Your task to perform on an android device: Show me popular games on the Play Store Image 0: 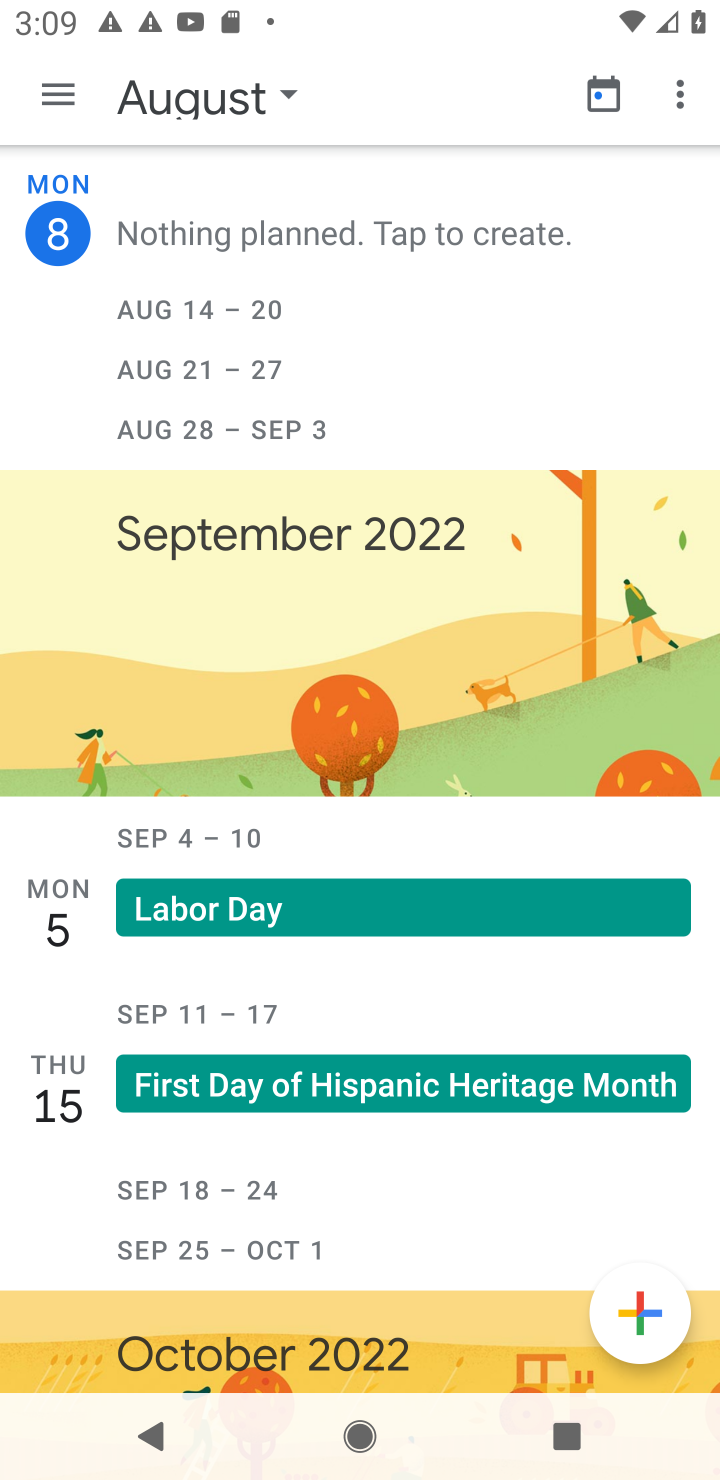
Step 0: press home button
Your task to perform on an android device: Show me popular games on the Play Store Image 1: 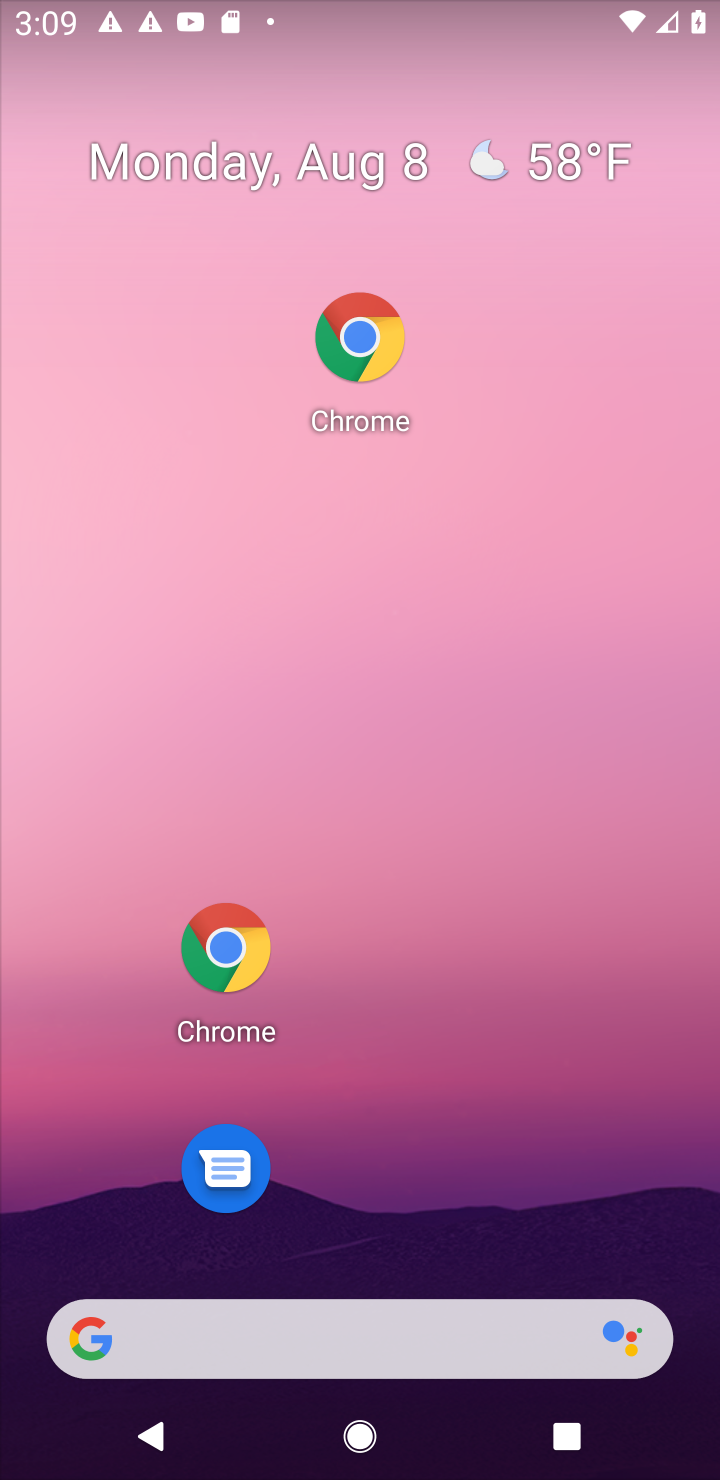
Step 1: drag from (534, 1235) to (429, 210)
Your task to perform on an android device: Show me popular games on the Play Store Image 2: 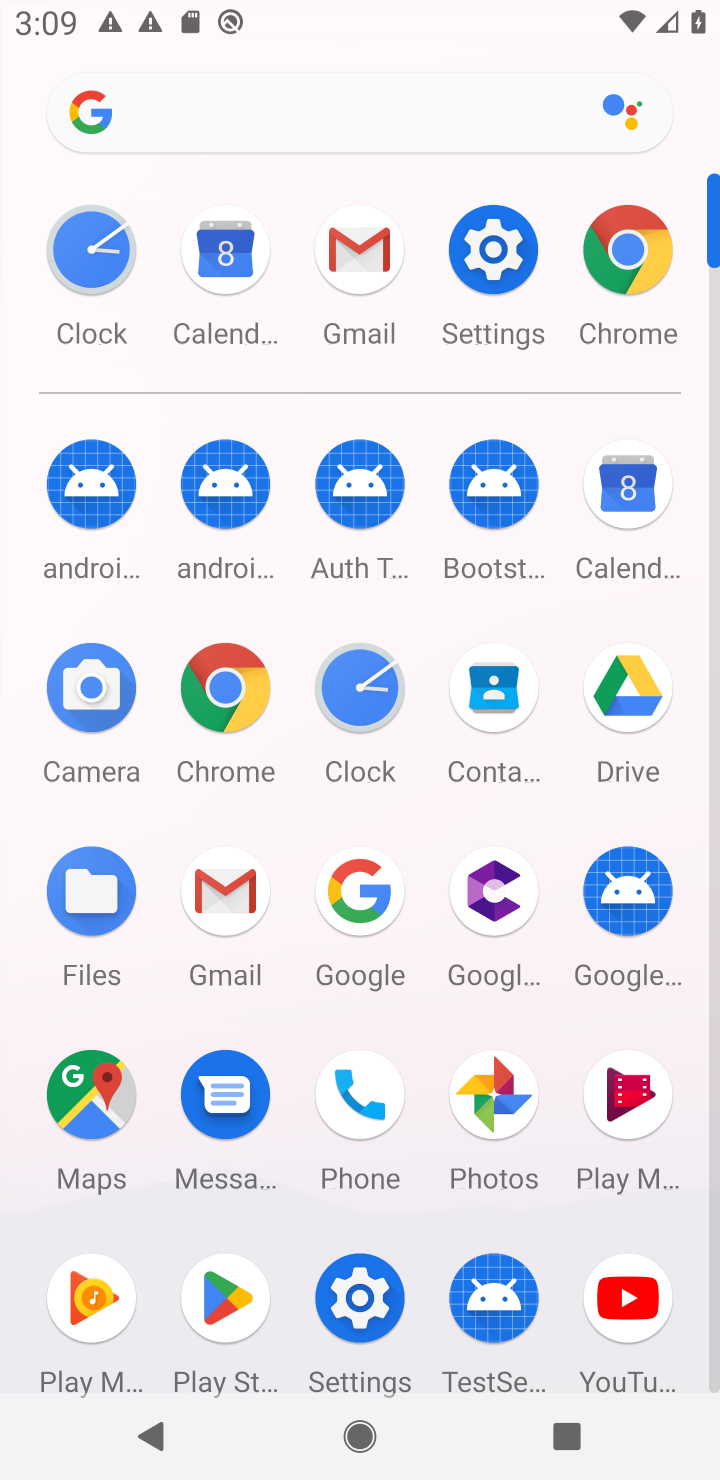
Step 2: click (222, 1275)
Your task to perform on an android device: Show me popular games on the Play Store Image 3: 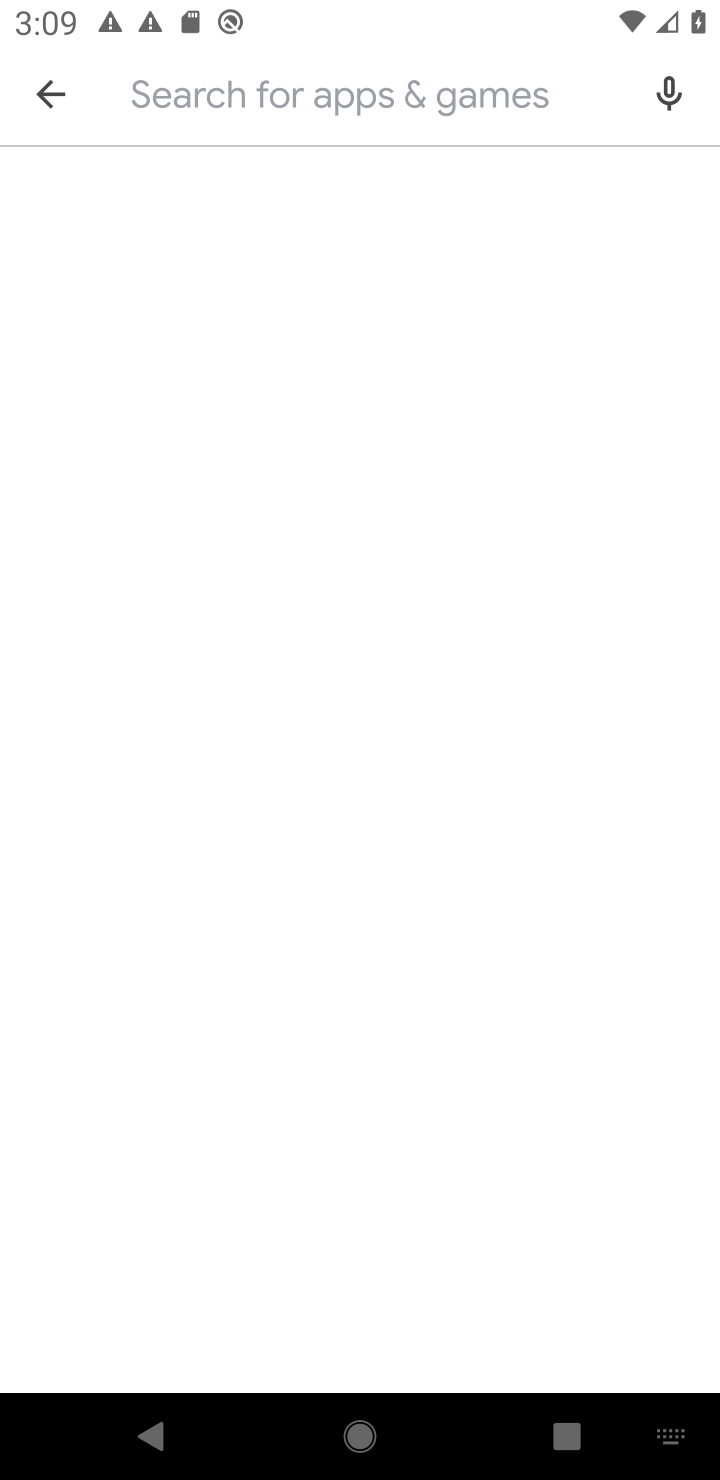
Step 3: task complete